Your task to perform on an android device: Open Google Image 0: 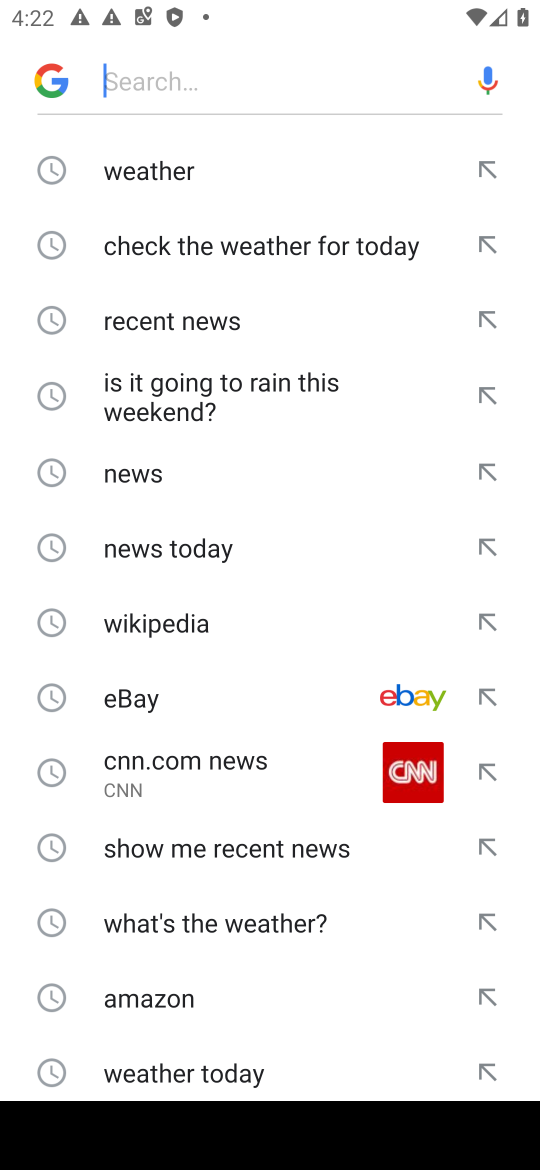
Step 0: press home button
Your task to perform on an android device: Open Google Image 1: 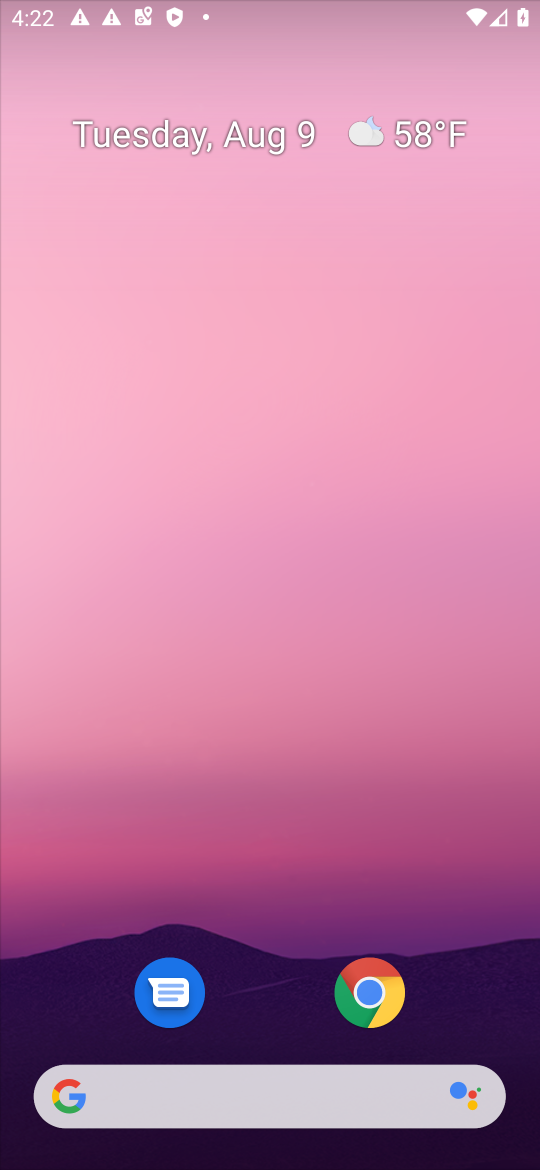
Step 1: drag from (309, 1119) to (445, 10)
Your task to perform on an android device: Open Google Image 2: 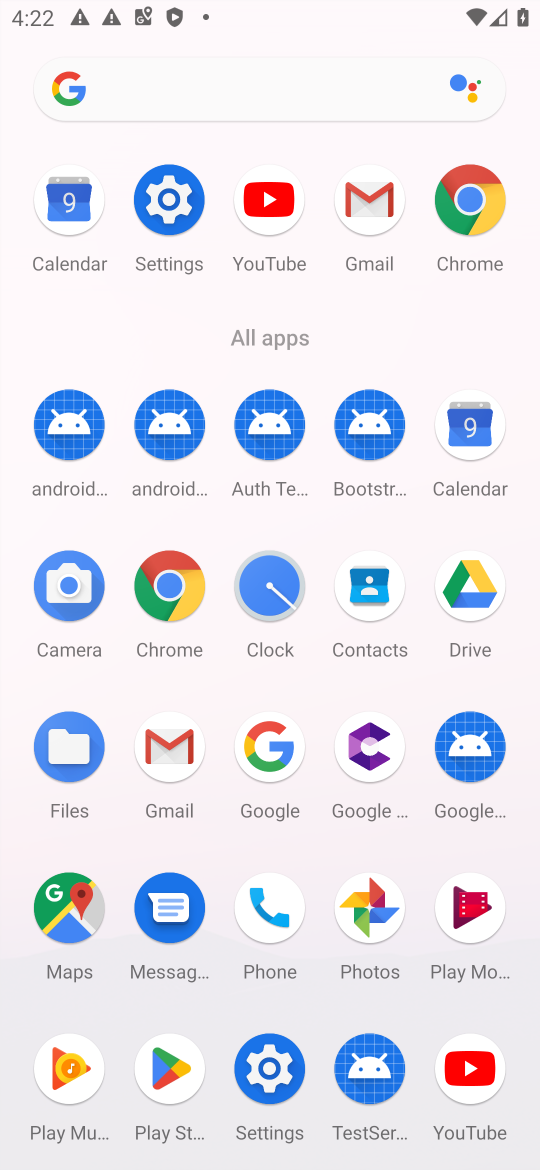
Step 2: click (267, 713)
Your task to perform on an android device: Open Google Image 3: 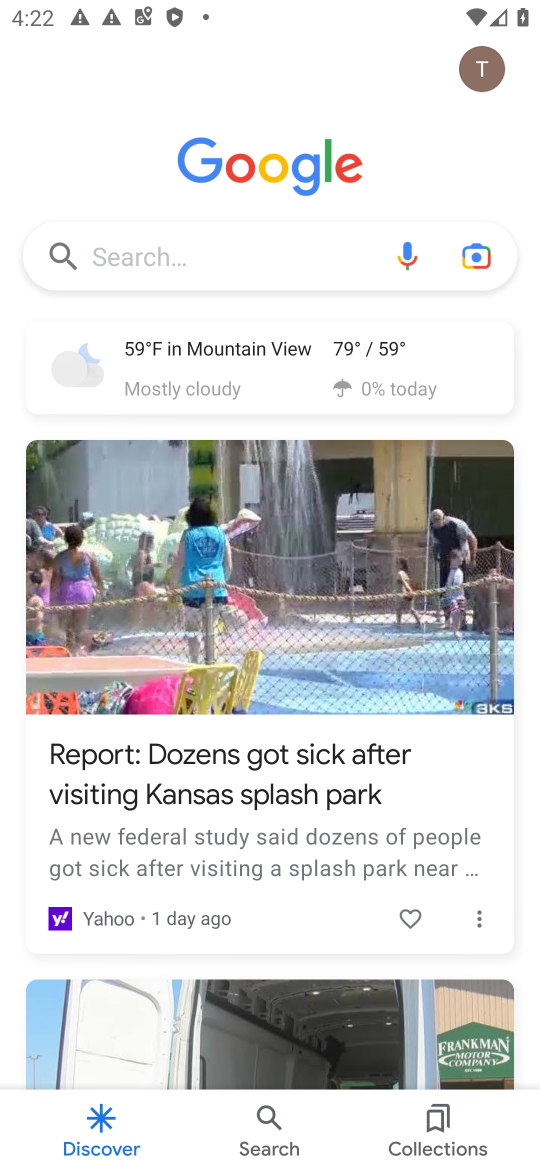
Step 3: task complete